Your task to perform on an android device: move an email to a new category in the gmail app Image 0: 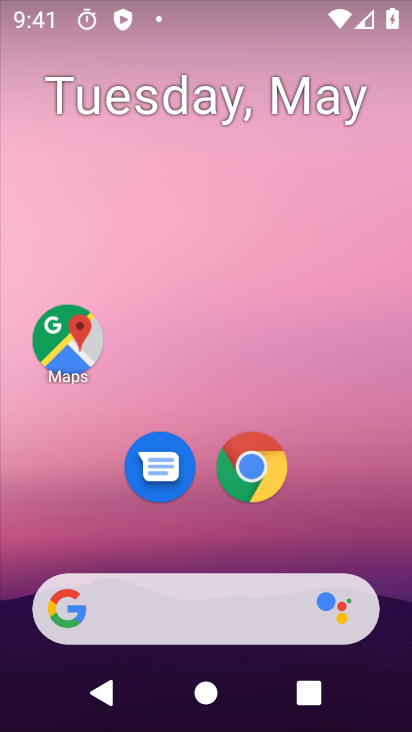
Step 0: drag from (394, 579) to (299, 20)
Your task to perform on an android device: move an email to a new category in the gmail app Image 1: 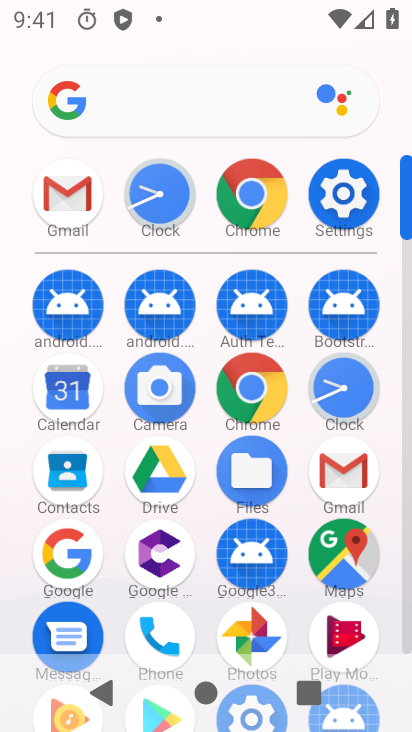
Step 1: drag from (6, 643) to (21, 284)
Your task to perform on an android device: move an email to a new category in the gmail app Image 2: 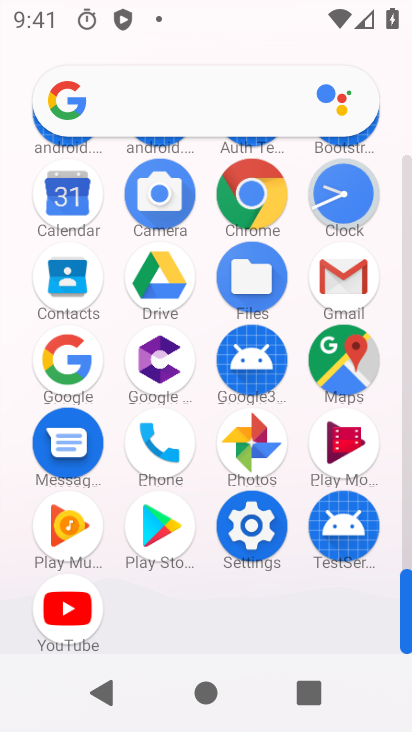
Step 2: click (345, 266)
Your task to perform on an android device: move an email to a new category in the gmail app Image 3: 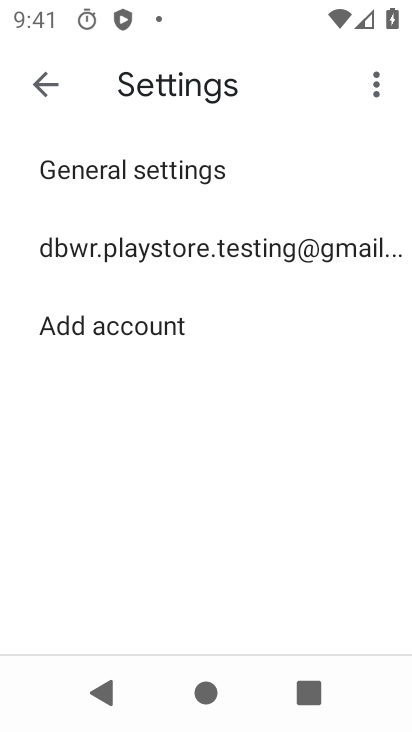
Step 3: click (52, 77)
Your task to perform on an android device: move an email to a new category in the gmail app Image 4: 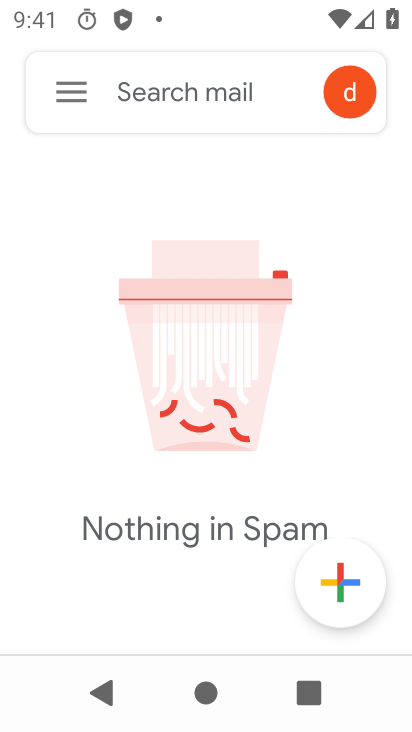
Step 4: click (67, 93)
Your task to perform on an android device: move an email to a new category in the gmail app Image 5: 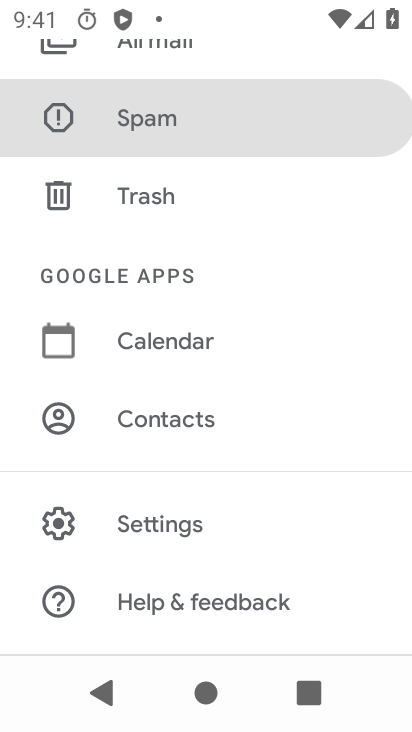
Step 5: drag from (269, 215) to (267, 550)
Your task to perform on an android device: move an email to a new category in the gmail app Image 6: 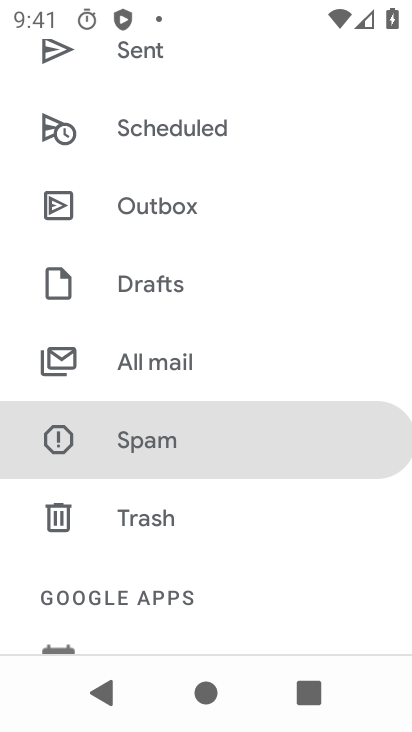
Step 6: click (152, 364)
Your task to perform on an android device: move an email to a new category in the gmail app Image 7: 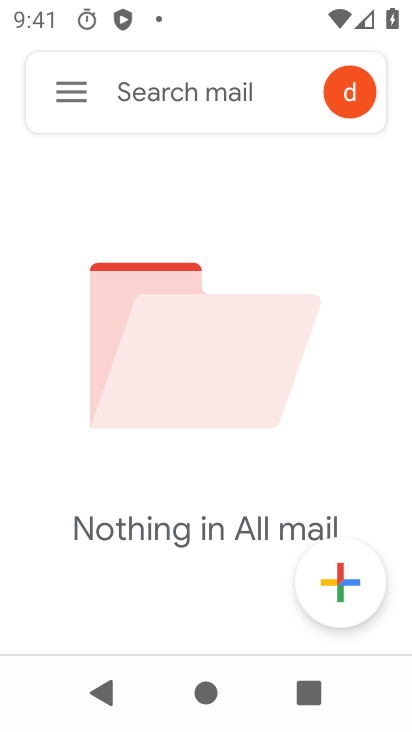
Step 7: click (77, 81)
Your task to perform on an android device: move an email to a new category in the gmail app Image 8: 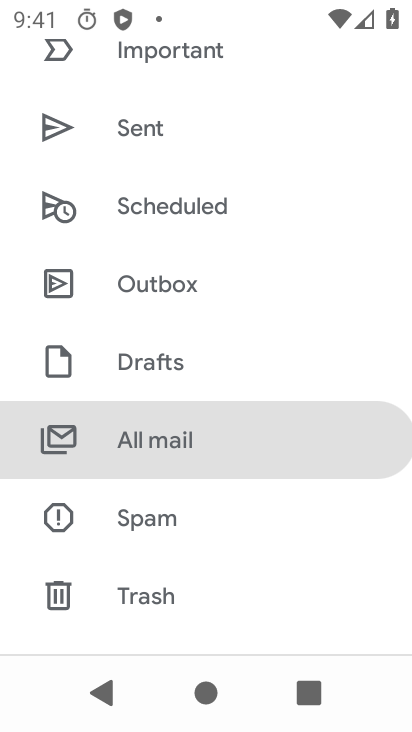
Step 8: drag from (306, 185) to (306, 539)
Your task to perform on an android device: move an email to a new category in the gmail app Image 9: 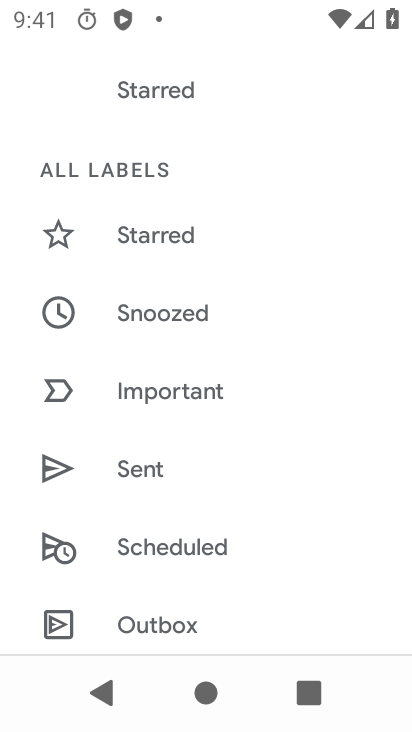
Step 9: drag from (235, 251) to (191, 609)
Your task to perform on an android device: move an email to a new category in the gmail app Image 10: 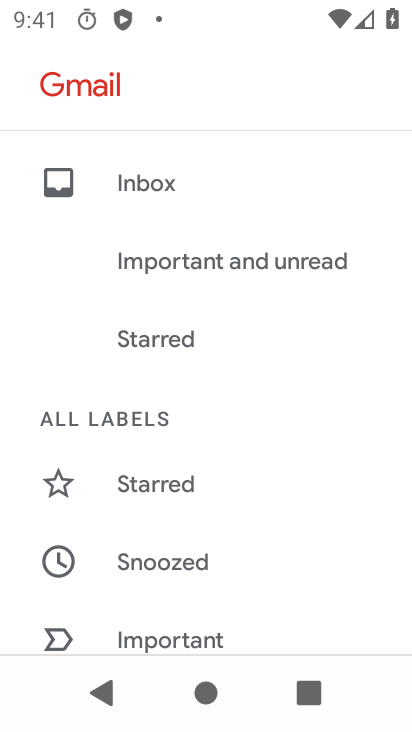
Step 10: click (173, 195)
Your task to perform on an android device: move an email to a new category in the gmail app Image 11: 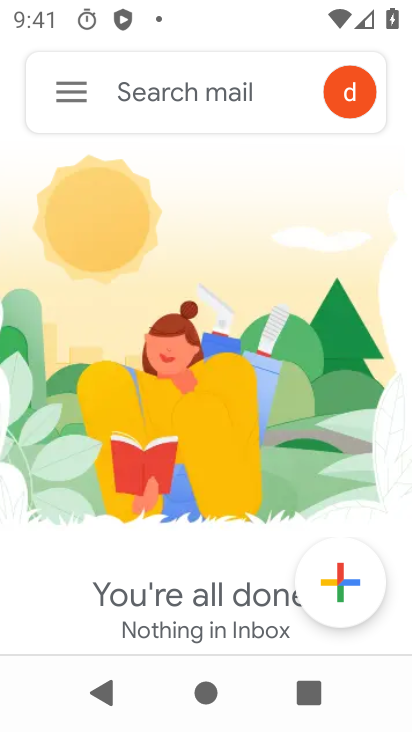
Step 11: click (85, 90)
Your task to perform on an android device: move an email to a new category in the gmail app Image 12: 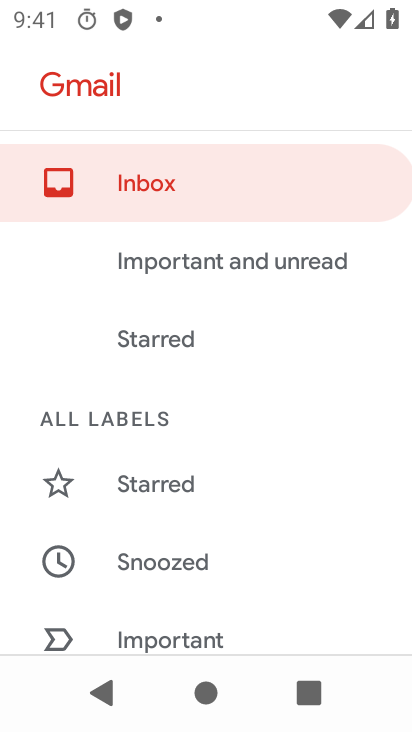
Step 12: drag from (249, 529) to (244, 169)
Your task to perform on an android device: move an email to a new category in the gmail app Image 13: 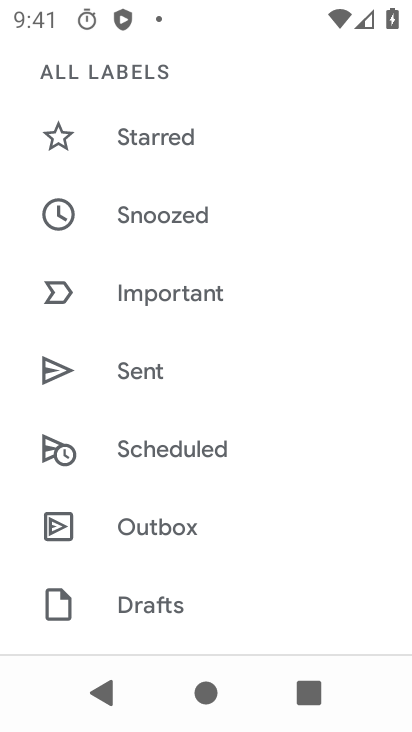
Step 13: drag from (238, 535) to (229, 95)
Your task to perform on an android device: move an email to a new category in the gmail app Image 14: 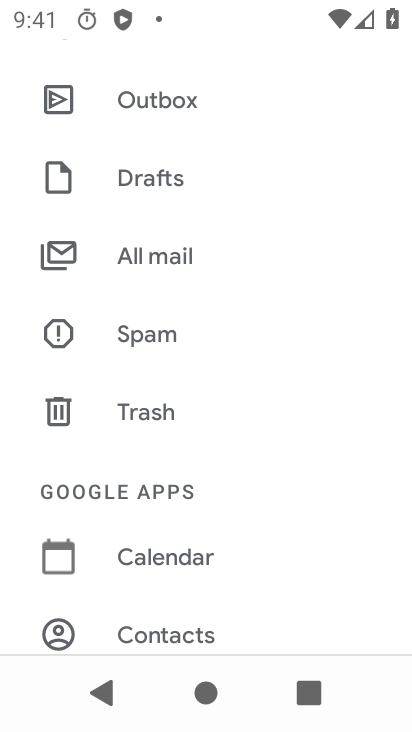
Step 14: click (179, 265)
Your task to perform on an android device: move an email to a new category in the gmail app Image 15: 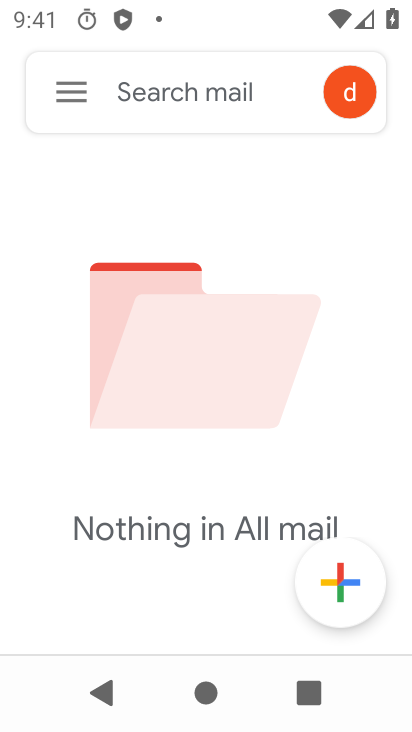
Step 15: click (54, 73)
Your task to perform on an android device: move an email to a new category in the gmail app Image 16: 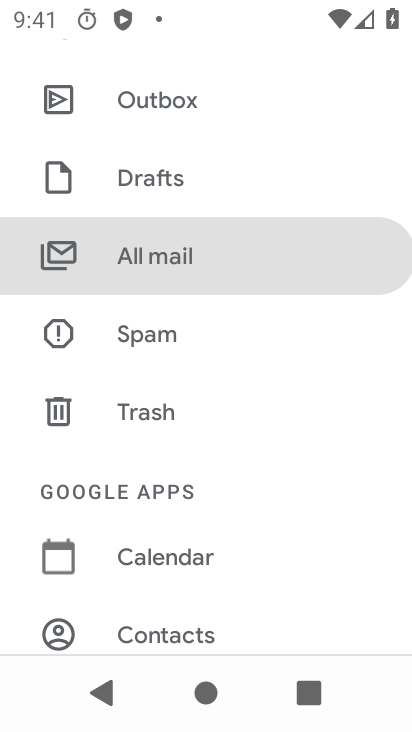
Step 16: drag from (209, 537) to (207, 79)
Your task to perform on an android device: move an email to a new category in the gmail app Image 17: 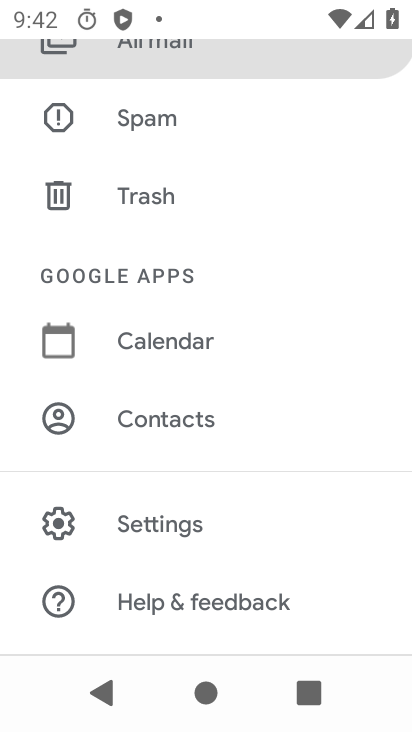
Step 17: drag from (227, 140) to (248, 548)
Your task to perform on an android device: move an email to a new category in the gmail app Image 18: 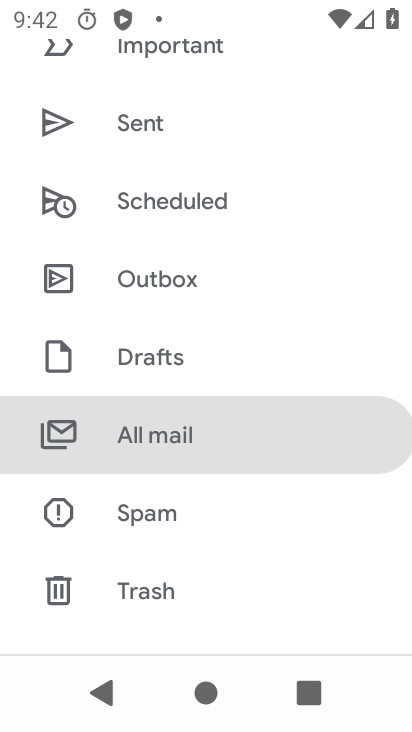
Step 18: drag from (234, 116) to (234, 453)
Your task to perform on an android device: move an email to a new category in the gmail app Image 19: 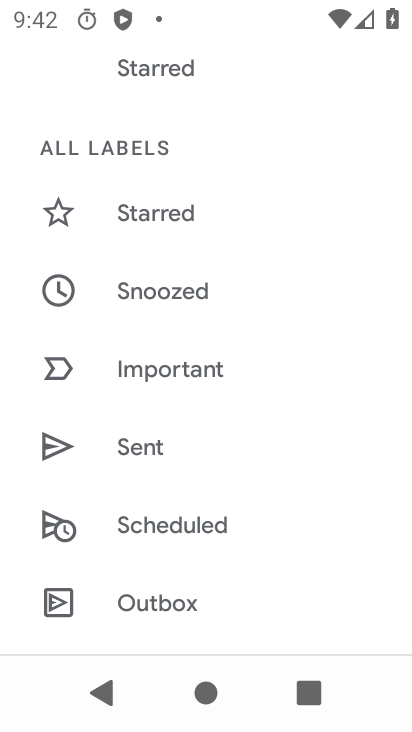
Step 19: drag from (228, 156) to (228, 571)
Your task to perform on an android device: move an email to a new category in the gmail app Image 20: 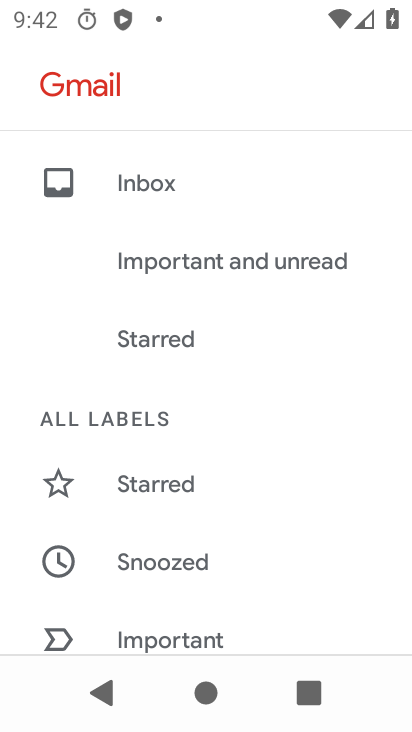
Step 20: click (184, 175)
Your task to perform on an android device: move an email to a new category in the gmail app Image 21: 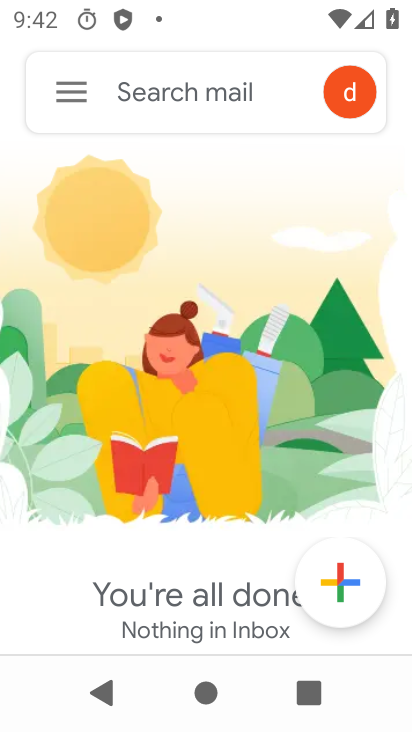
Step 21: click (76, 87)
Your task to perform on an android device: move an email to a new category in the gmail app Image 22: 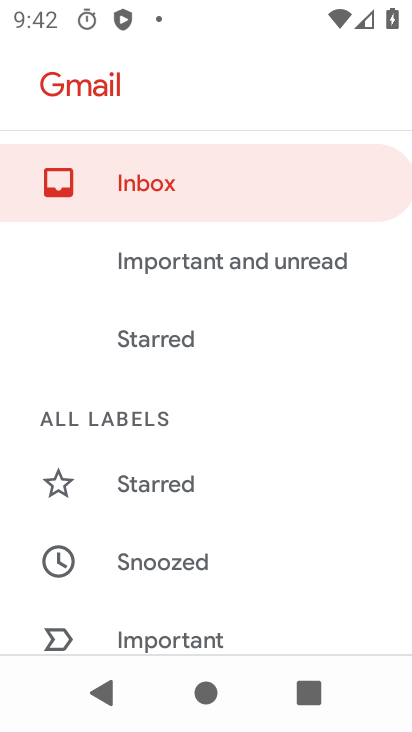
Step 22: click (216, 182)
Your task to perform on an android device: move an email to a new category in the gmail app Image 23: 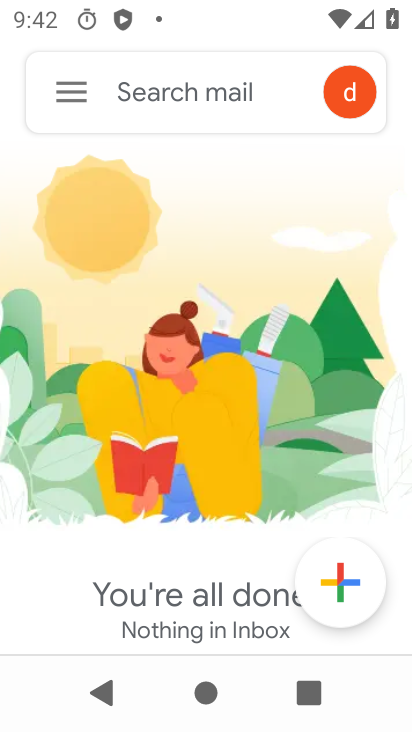
Step 23: task complete